Your task to perform on an android device: Go to privacy settings Image 0: 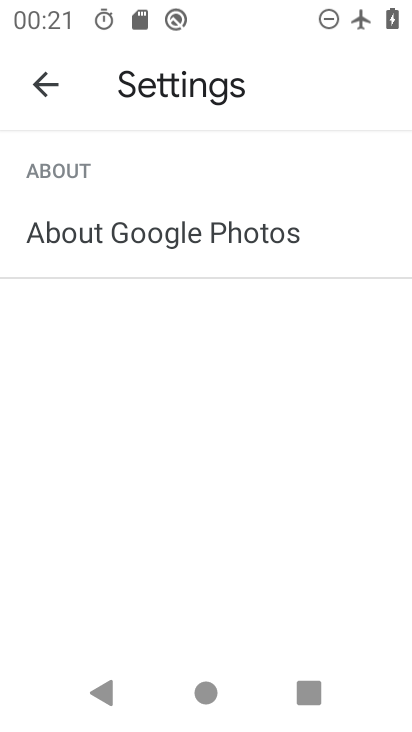
Step 0: press home button
Your task to perform on an android device: Go to privacy settings Image 1: 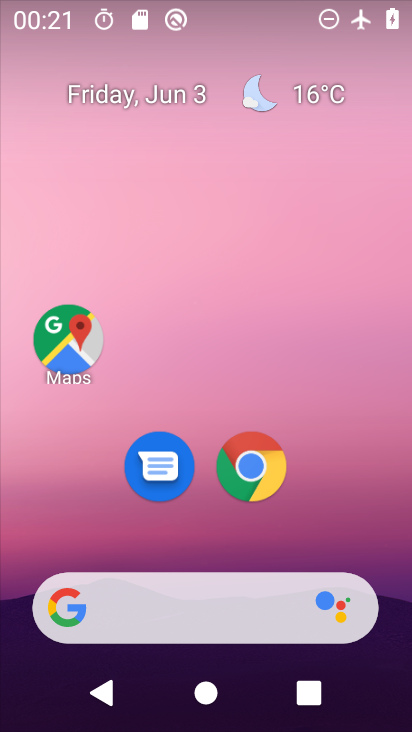
Step 1: drag from (191, 540) to (153, 217)
Your task to perform on an android device: Go to privacy settings Image 2: 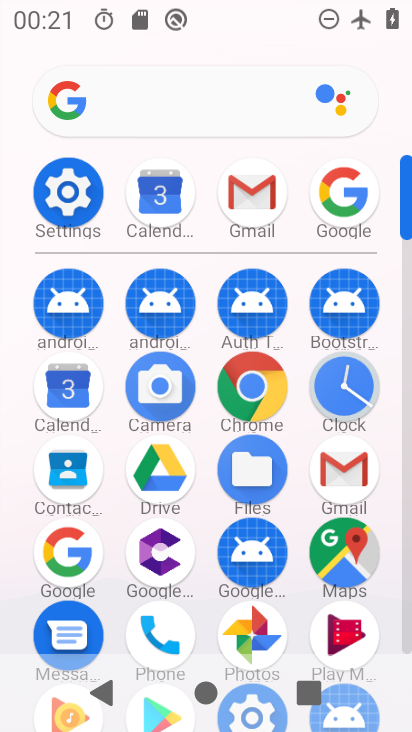
Step 2: click (48, 187)
Your task to perform on an android device: Go to privacy settings Image 3: 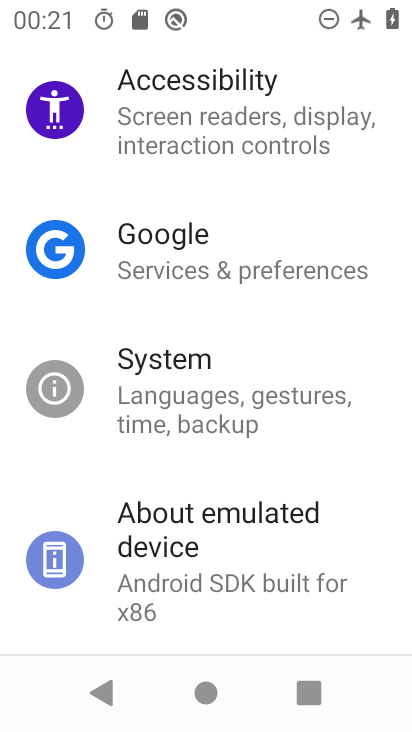
Step 3: drag from (243, 552) to (201, 329)
Your task to perform on an android device: Go to privacy settings Image 4: 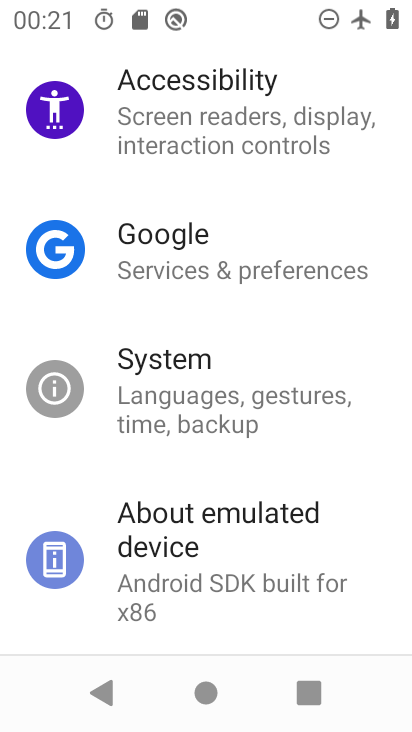
Step 4: drag from (199, 218) to (199, 497)
Your task to perform on an android device: Go to privacy settings Image 5: 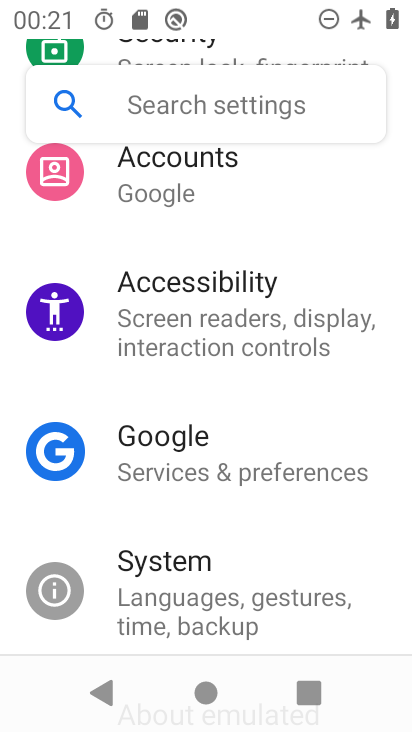
Step 5: drag from (171, 224) to (171, 557)
Your task to perform on an android device: Go to privacy settings Image 6: 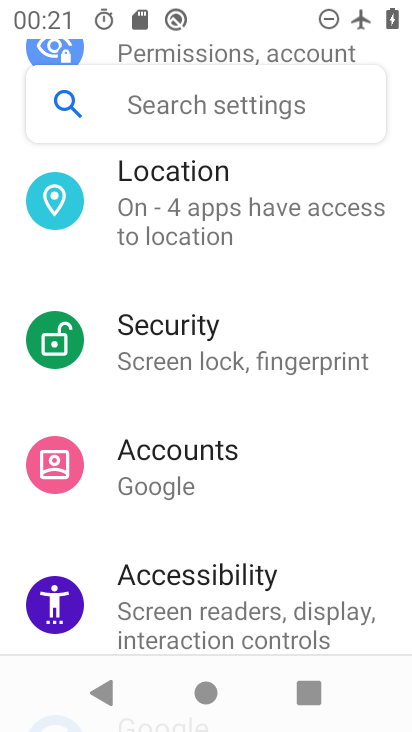
Step 6: drag from (171, 219) to (183, 477)
Your task to perform on an android device: Go to privacy settings Image 7: 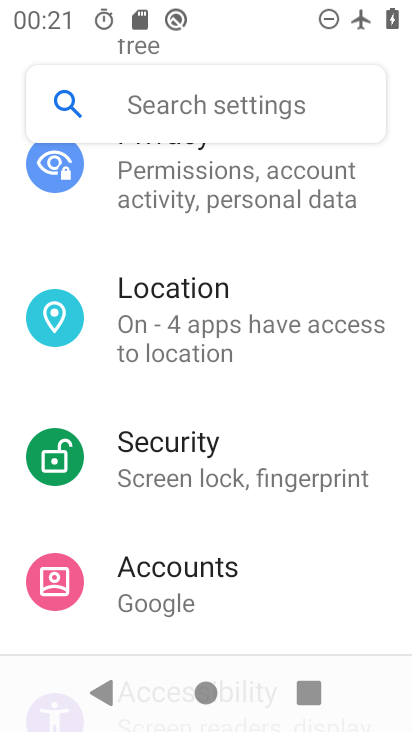
Step 7: drag from (223, 258) to (223, 582)
Your task to perform on an android device: Go to privacy settings Image 8: 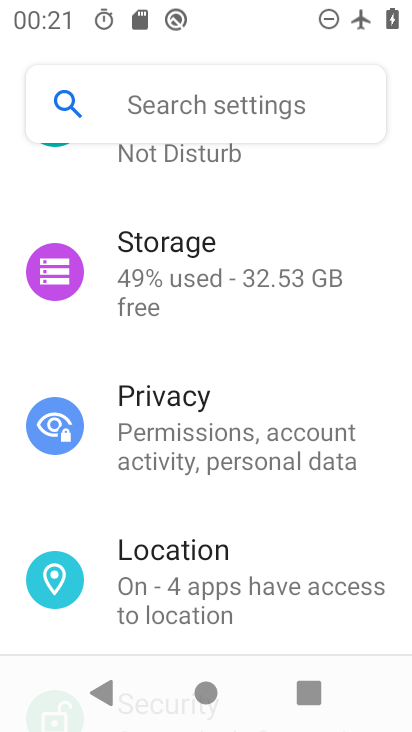
Step 8: click (199, 455)
Your task to perform on an android device: Go to privacy settings Image 9: 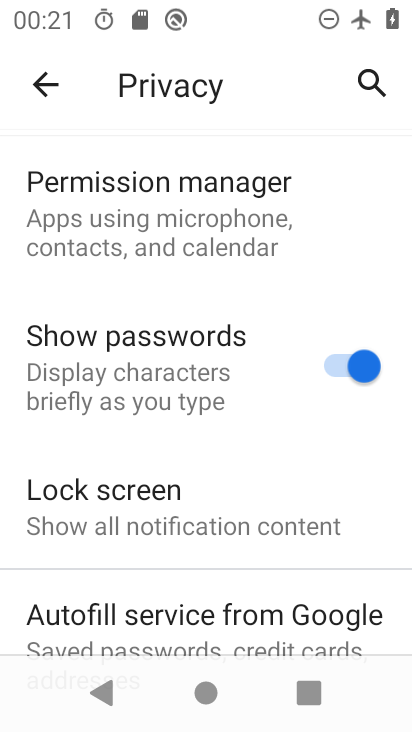
Step 9: task complete